Your task to perform on an android device: Go to calendar. Show me events next week Image 0: 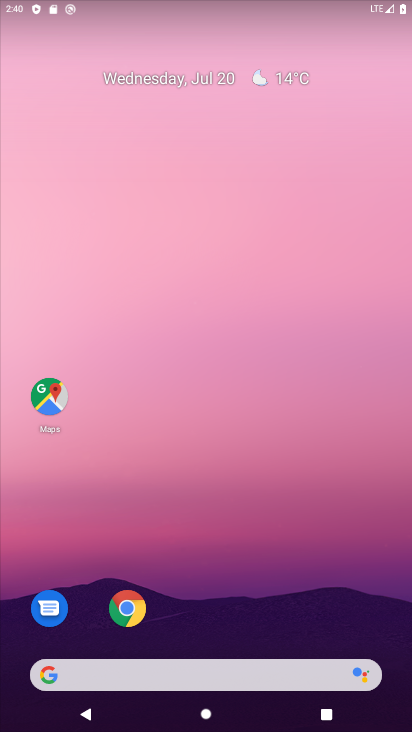
Step 0: drag from (235, 654) to (174, 160)
Your task to perform on an android device: Go to calendar. Show me events next week Image 1: 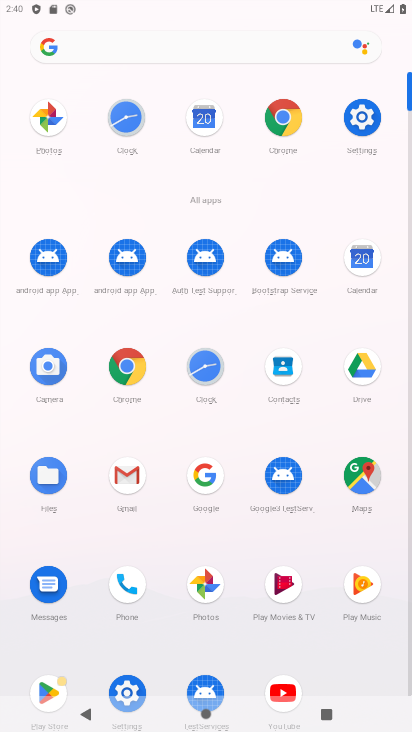
Step 1: click (355, 253)
Your task to perform on an android device: Go to calendar. Show me events next week Image 2: 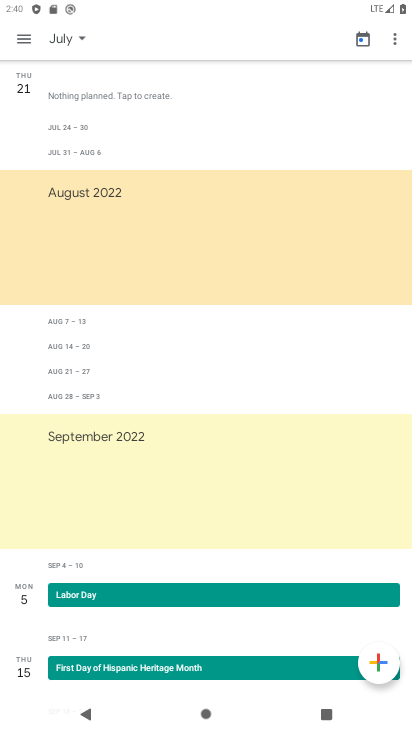
Step 2: click (20, 41)
Your task to perform on an android device: Go to calendar. Show me events next week Image 3: 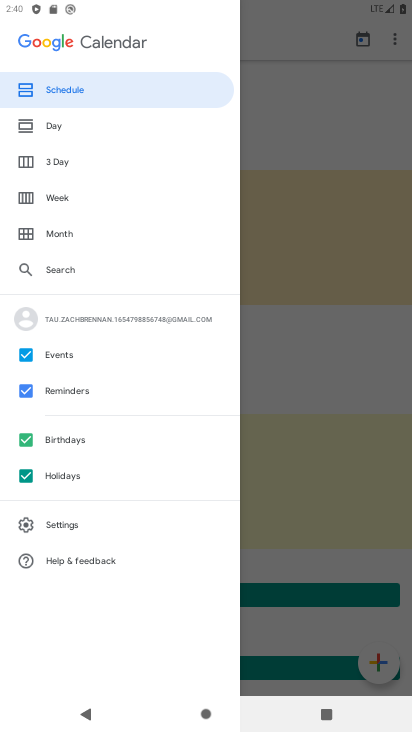
Step 3: click (64, 190)
Your task to perform on an android device: Go to calendar. Show me events next week Image 4: 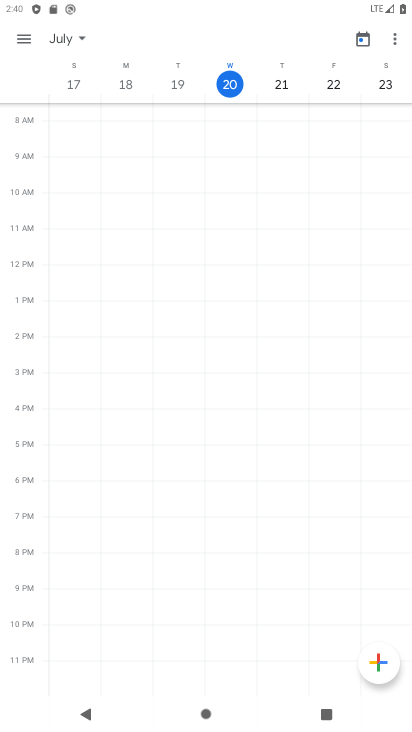
Step 4: task complete